Your task to perform on an android device: Open calendar and show me the first week of next month Image 0: 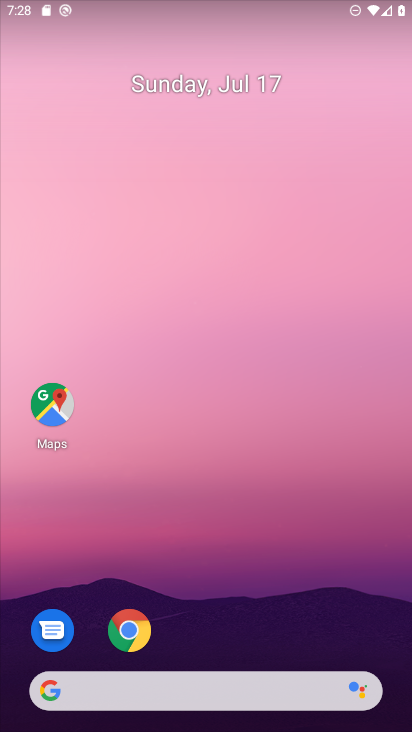
Step 0: drag from (372, 641) to (248, 99)
Your task to perform on an android device: Open calendar and show me the first week of next month Image 1: 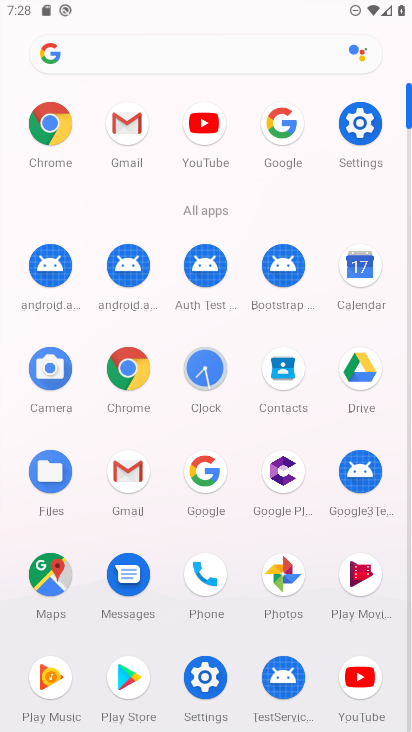
Step 1: click (349, 263)
Your task to perform on an android device: Open calendar and show me the first week of next month Image 2: 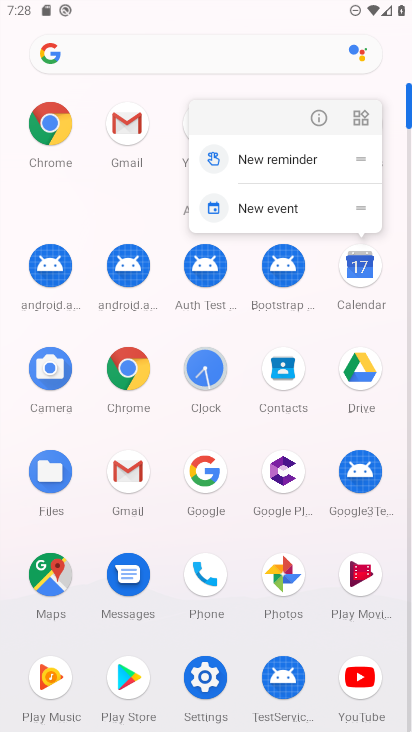
Step 2: click (349, 263)
Your task to perform on an android device: Open calendar and show me the first week of next month Image 3: 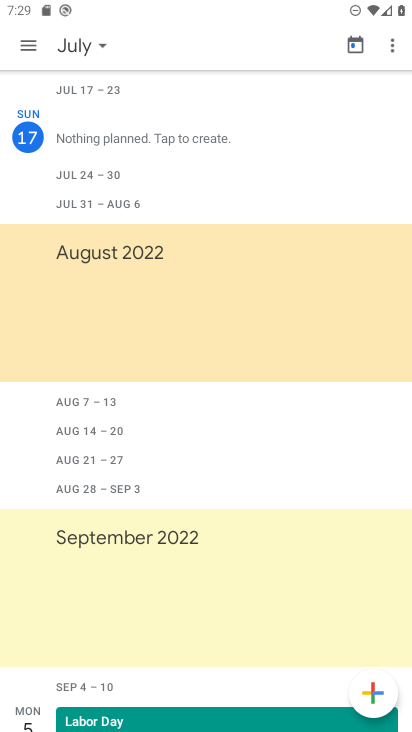
Step 3: click (67, 51)
Your task to perform on an android device: Open calendar and show me the first week of next month Image 4: 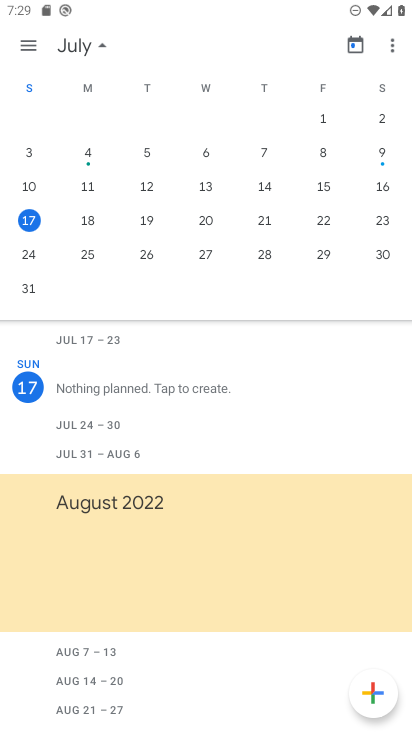
Step 4: drag from (374, 175) to (6, 194)
Your task to perform on an android device: Open calendar and show me the first week of next month Image 5: 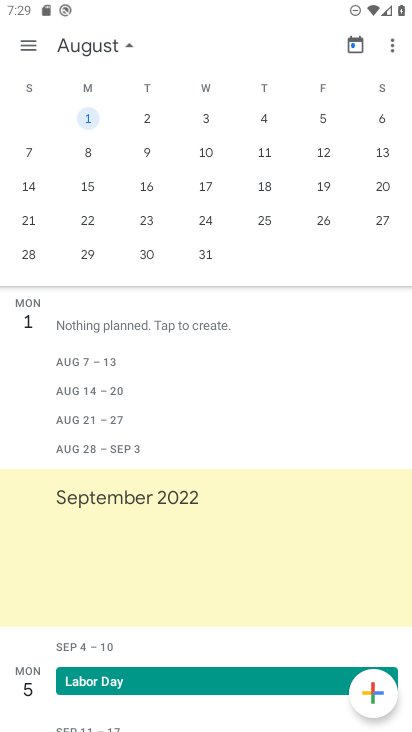
Step 5: click (27, 152)
Your task to perform on an android device: Open calendar and show me the first week of next month Image 6: 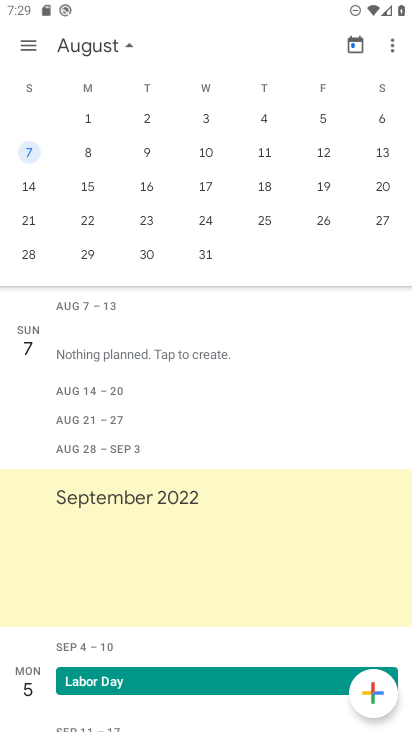
Step 6: task complete